Your task to perform on an android device: change the upload size in google photos Image 0: 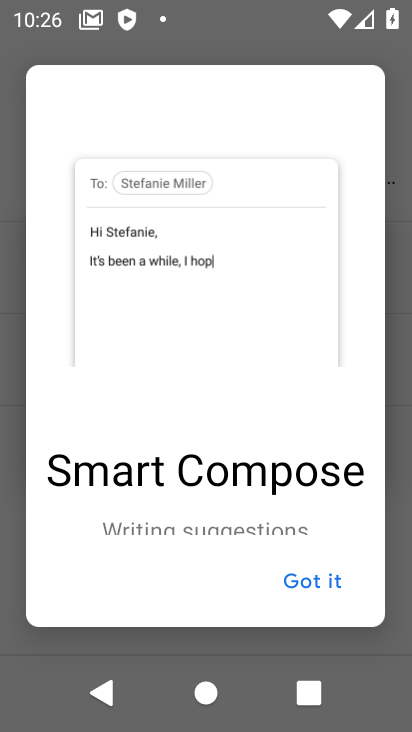
Step 0: click (311, 583)
Your task to perform on an android device: change the upload size in google photos Image 1: 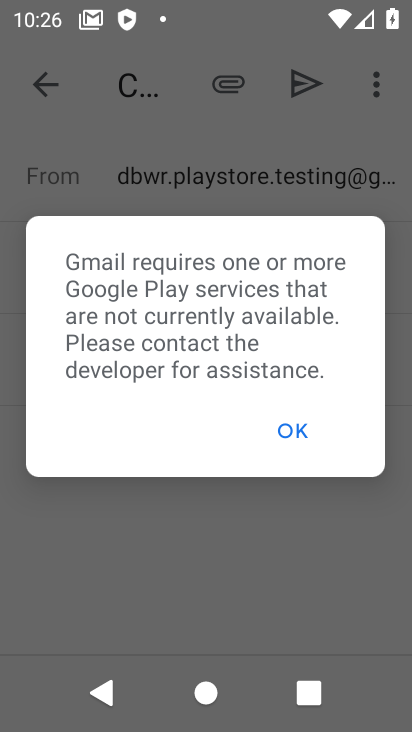
Step 1: click (297, 436)
Your task to perform on an android device: change the upload size in google photos Image 2: 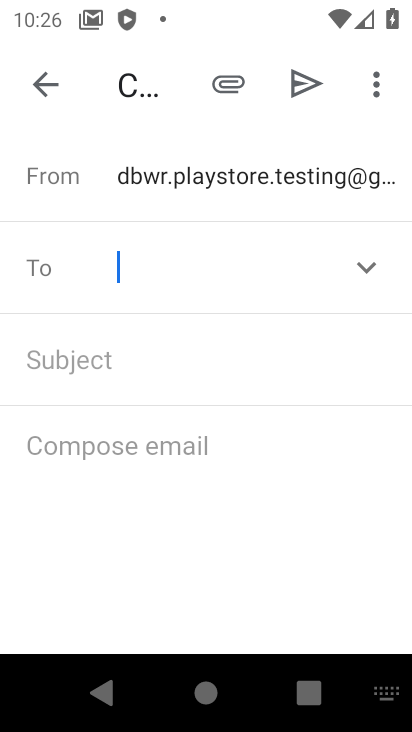
Step 2: press home button
Your task to perform on an android device: change the upload size in google photos Image 3: 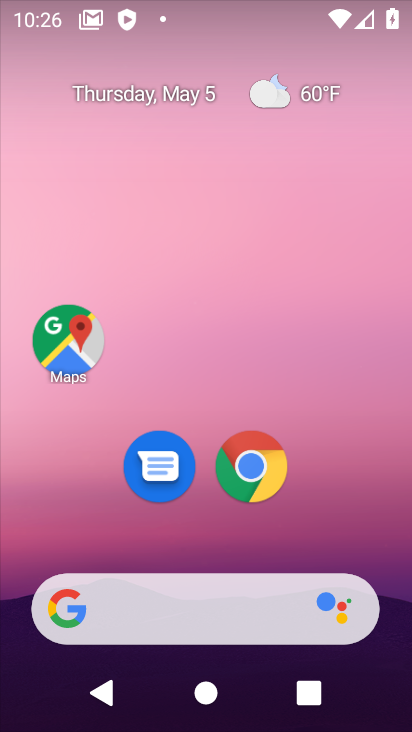
Step 3: drag from (176, 566) to (195, 251)
Your task to perform on an android device: change the upload size in google photos Image 4: 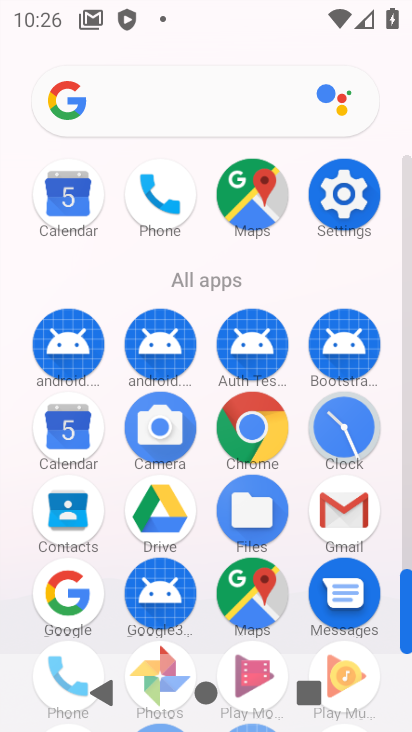
Step 4: drag from (206, 598) to (242, 298)
Your task to perform on an android device: change the upload size in google photos Image 5: 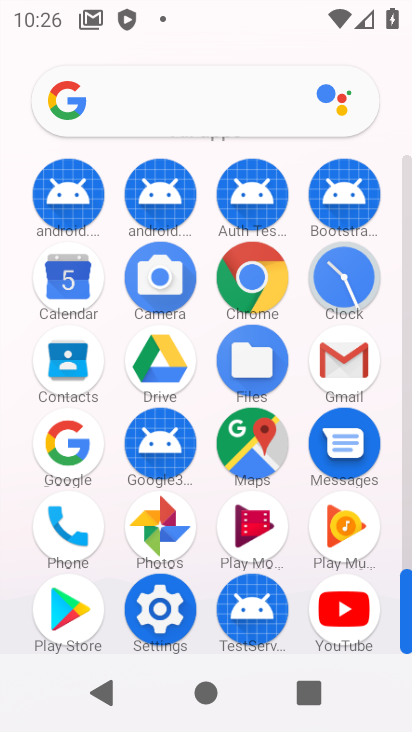
Step 5: click (160, 526)
Your task to perform on an android device: change the upload size in google photos Image 6: 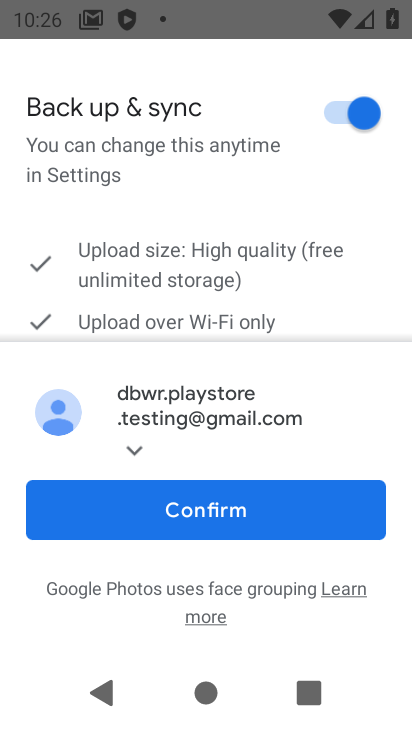
Step 6: click (193, 517)
Your task to perform on an android device: change the upload size in google photos Image 7: 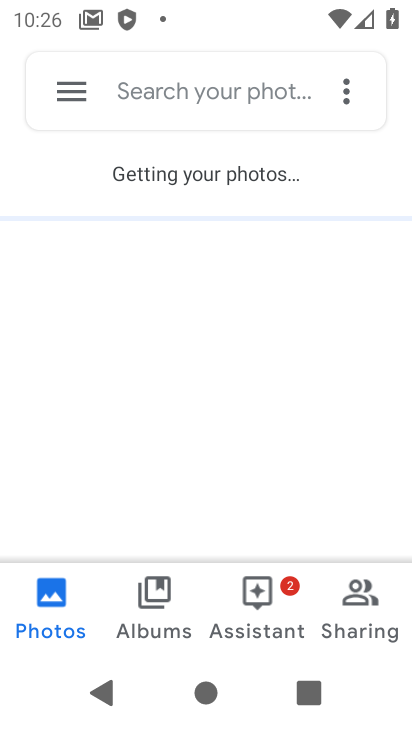
Step 7: click (63, 90)
Your task to perform on an android device: change the upload size in google photos Image 8: 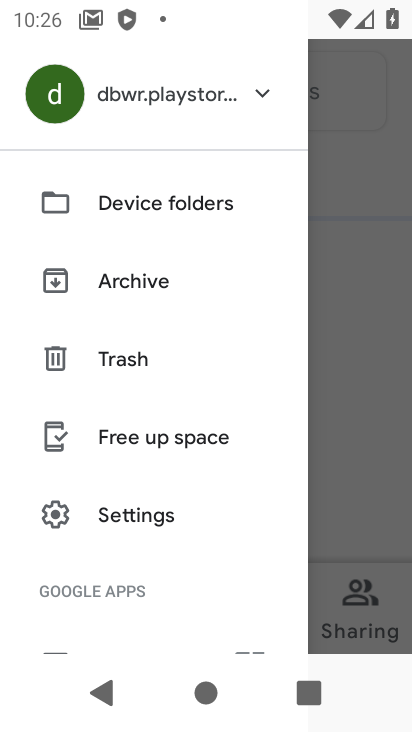
Step 8: click (142, 509)
Your task to perform on an android device: change the upload size in google photos Image 9: 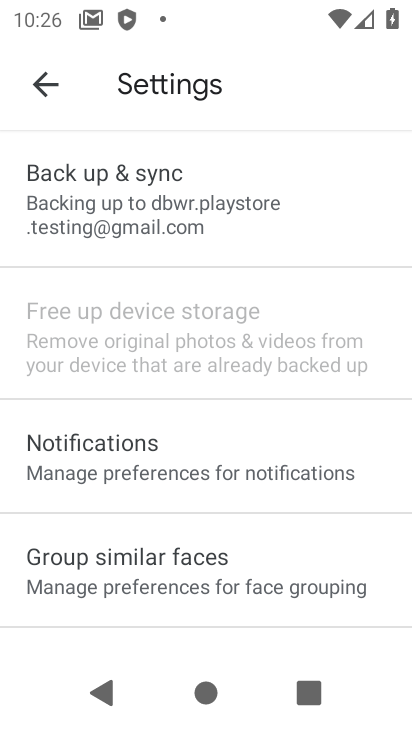
Step 9: drag from (137, 571) to (161, 246)
Your task to perform on an android device: change the upload size in google photos Image 10: 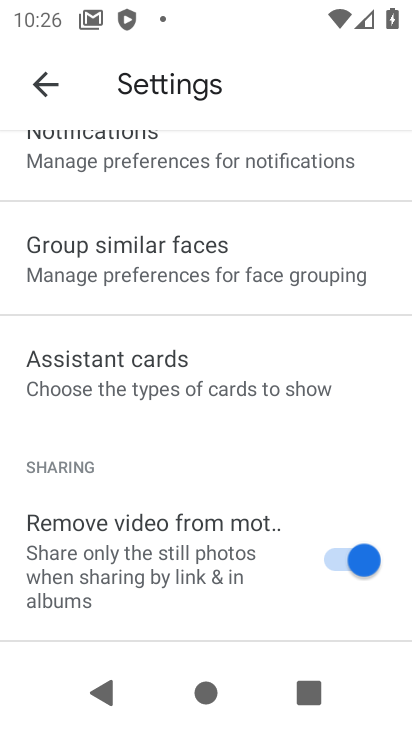
Step 10: drag from (184, 206) to (245, 567)
Your task to perform on an android device: change the upload size in google photos Image 11: 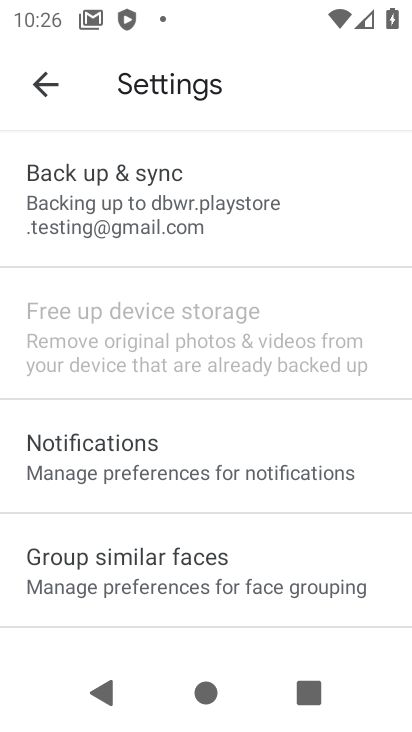
Step 11: click (189, 202)
Your task to perform on an android device: change the upload size in google photos Image 12: 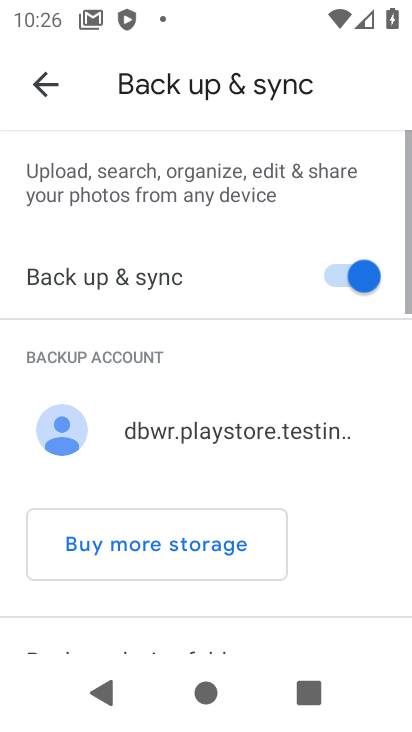
Step 12: drag from (146, 610) to (157, 227)
Your task to perform on an android device: change the upload size in google photos Image 13: 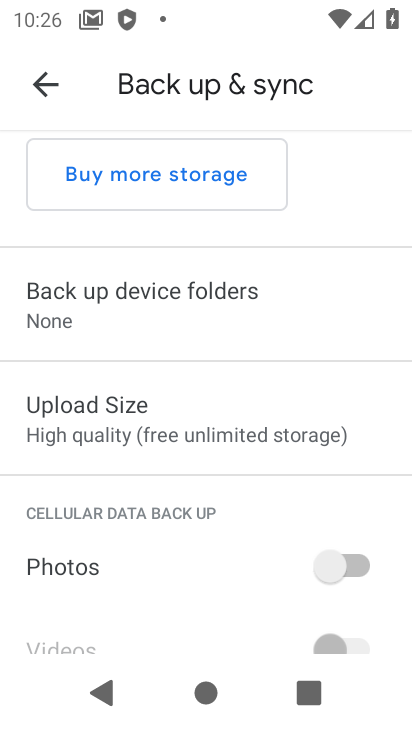
Step 13: click (136, 431)
Your task to perform on an android device: change the upload size in google photos Image 14: 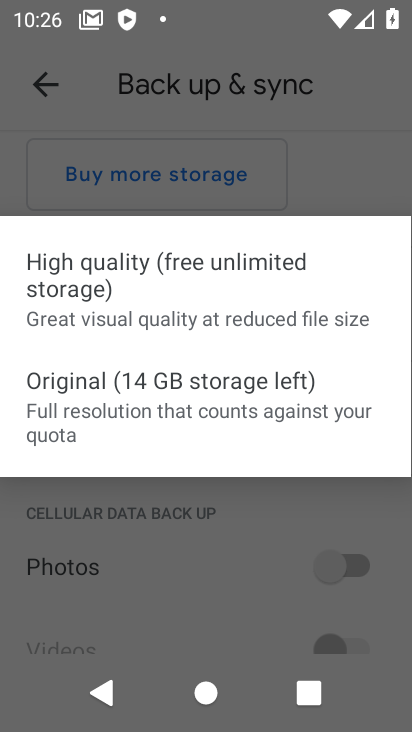
Step 14: click (61, 390)
Your task to perform on an android device: change the upload size in google photos Image 15: 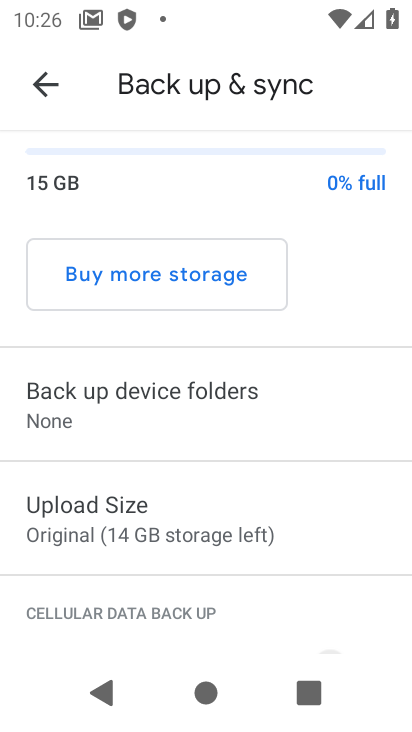
Step 15: task complete